Your task to perform on an android device: Open Youtube and go to the subscriptions tab Image 0: 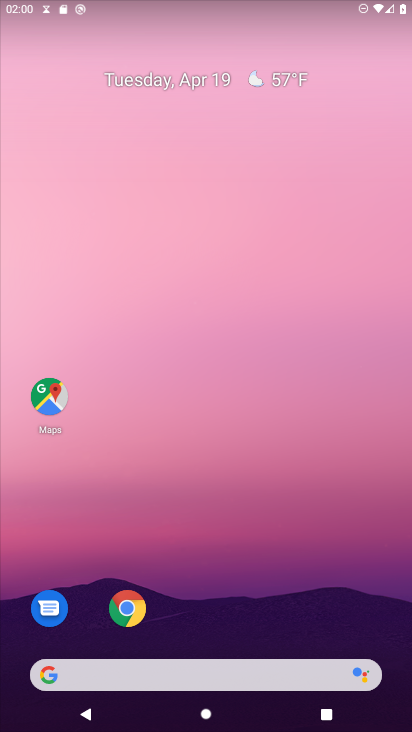
Step 0: drag from (206, 572) to (70, 87)
Your task to perform on an android device: Open Youtube and go to the subscriptions tab Image 1: 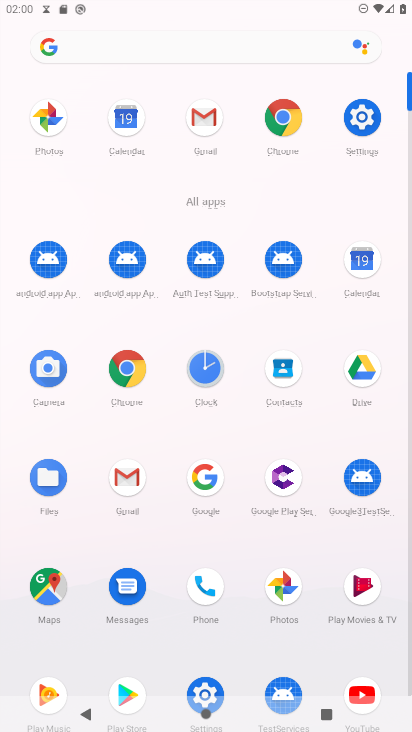
Step 1: drag from (322, 620) to (311, 320)
Your task to perform on an android device: Open Youtube and go to the subscriptions tab Image 2: 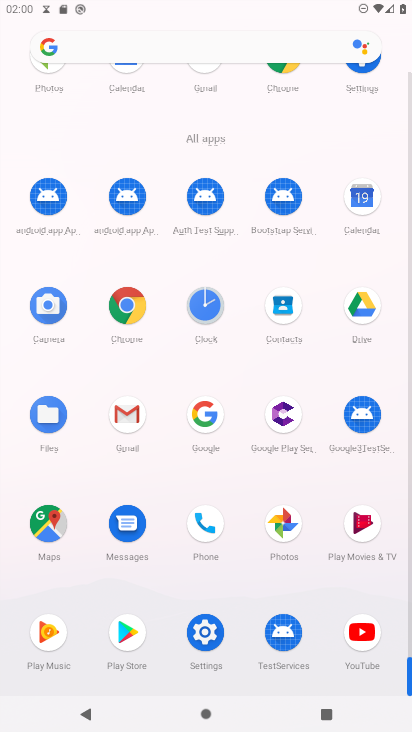
Step 2: click (365, 608)
Your task to perform on an android device: Open Youtube and go to the subscriptions tab Image 3: 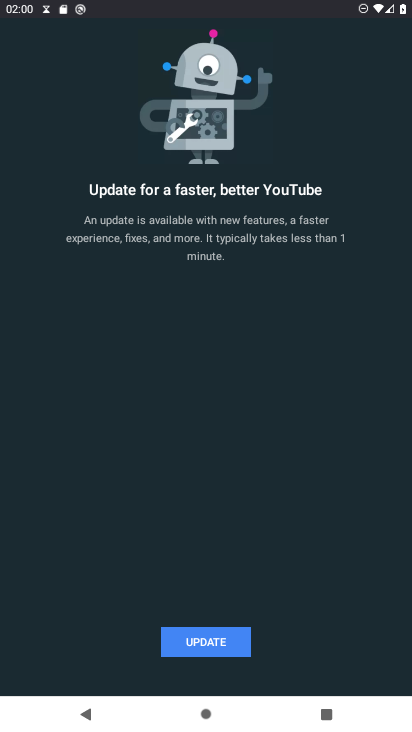
Step 3: click (198, 646)
Your task to perform on an android device: Open Youtube and go to the subscriptions tab Image 4: 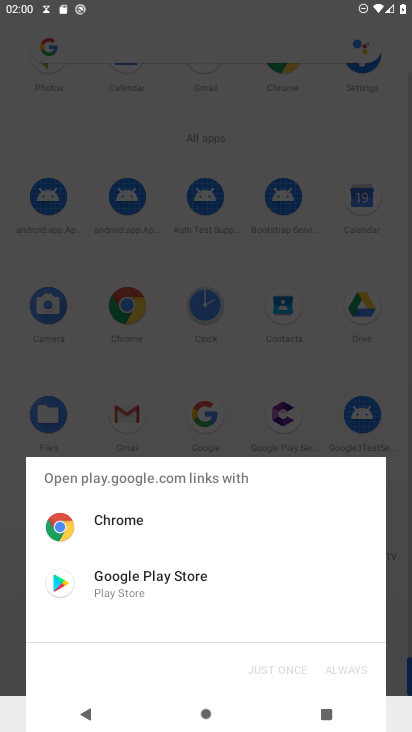
Step 4: click (171, 574)
Your task to perform on an android device: Open Youtube and go to the subscriptions tab Image 5: 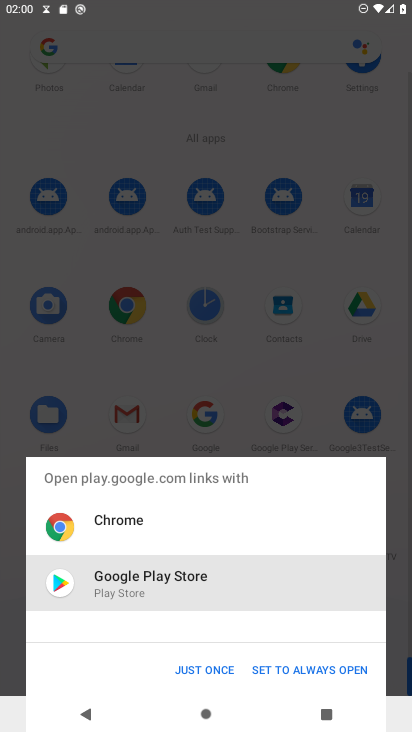
Step 5: click (166, 678)
Your task to perform on an android device: Open Youtube and go to the subscriptions tab Image 6: 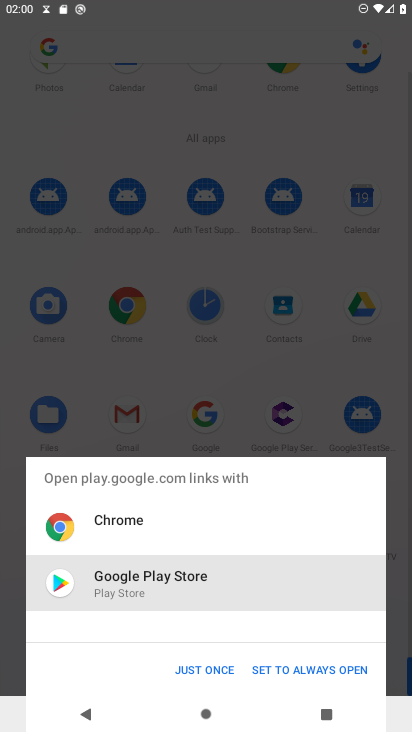
Step 6: click (194, 667)
Your task to perform on an android device: Open Youtube and go to the subscriptions tab Image 7: 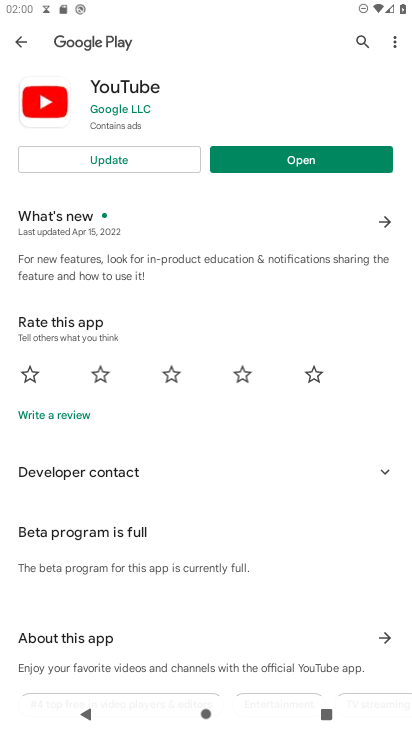
Step 7: click (176, 164)
Your task to perform on an android device: Open Youtube and go to the subscriptions tab Image 8: 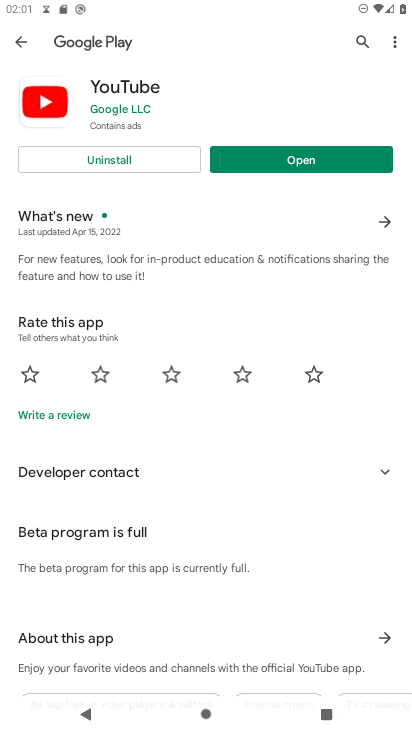
Step 8: click (343, 152)
Your task to perform on an android device: Open Youtube and go to the subscriptions tab Image 9: 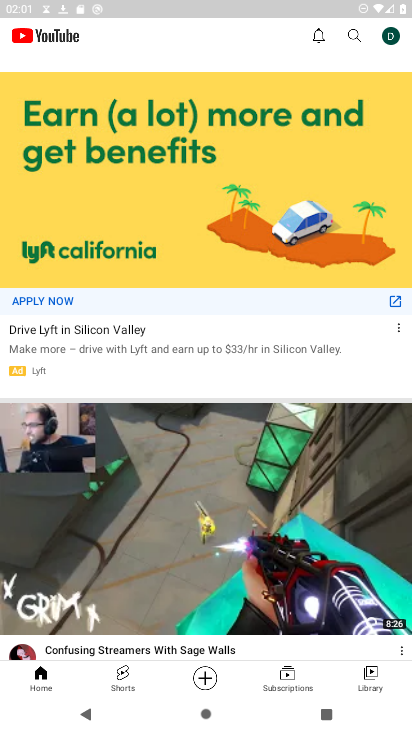
Step 9: click (288, 677)
Your task to perform on an android device: Open Youtube and go to the subscriptions tab Image 10: 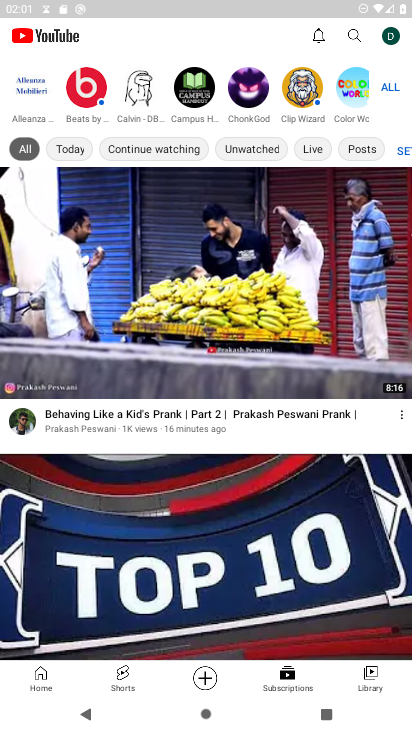
Step 10: task complete